Your task to perform on an android device: turn off smart reply in the gmail app Image 0: 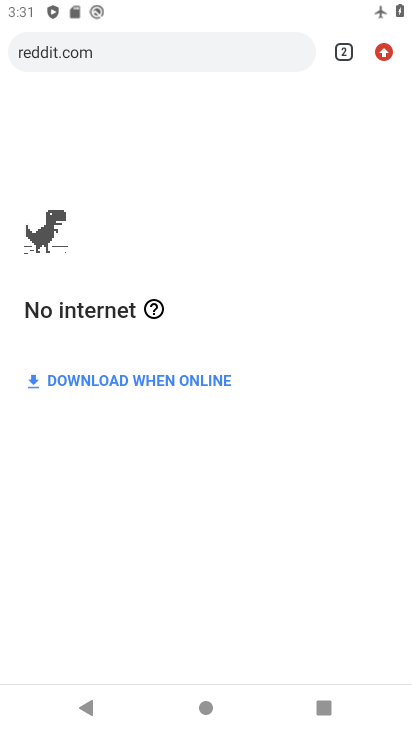
Step 0: press home button
Your task to perform on an android device: turn off smart reply in the gmail app Image 1: 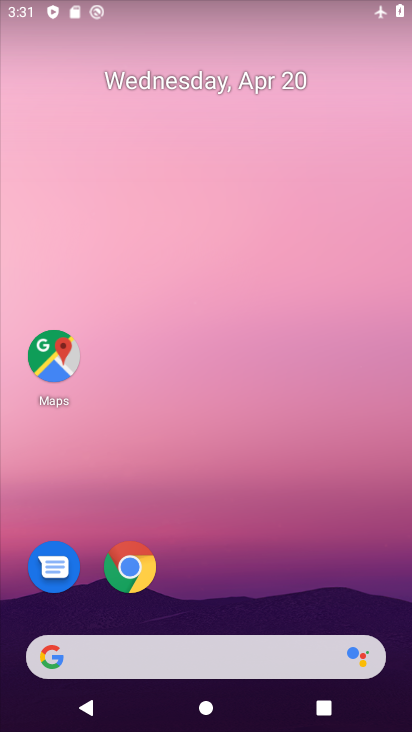
Step 1: drag from (209, 566) to (207, 265)
Your task to perform on an android device: turn off smart reply in the gmail app Image 2: 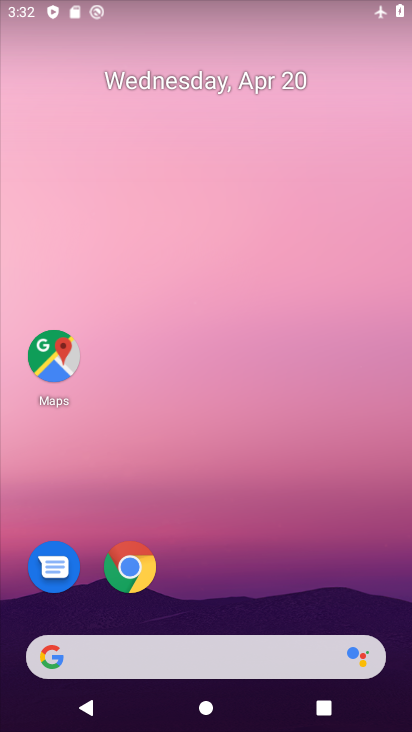
Step 2: drag from (310, 603) to (294, 250)
Your task to perform on an android device: turn off smart reply in the gmail app Image 3: 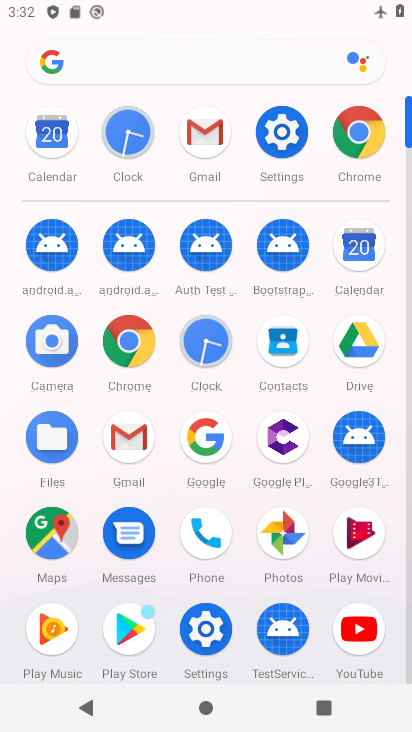
Step 3: click (209, 138)
Your task to perform on an android device: turn off smart reply in the gmail app Image 4: 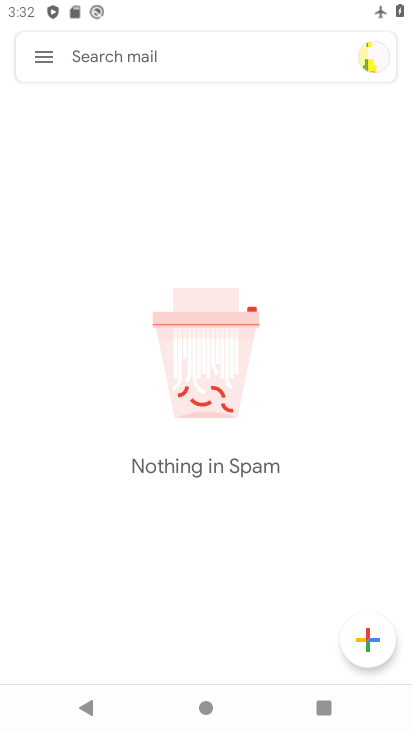
Step 4: click (35, 53)
Your task to perform on an android device: turn off smart reply in the gmail app Image 5: 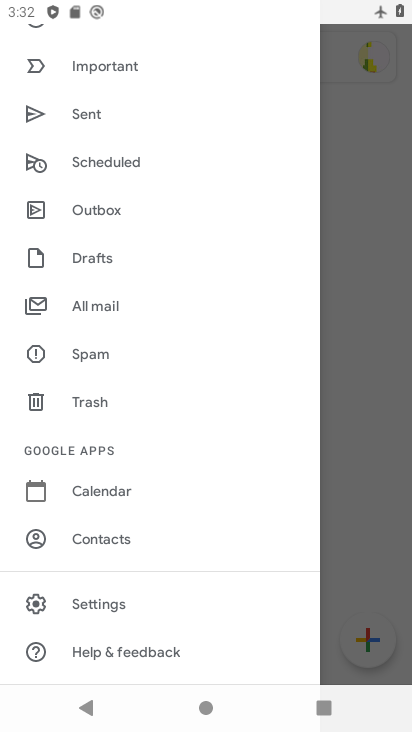
Step 5: click (160, 590)
Your task to perform on an android device: turn off smart reply in the gmail app Image 6: 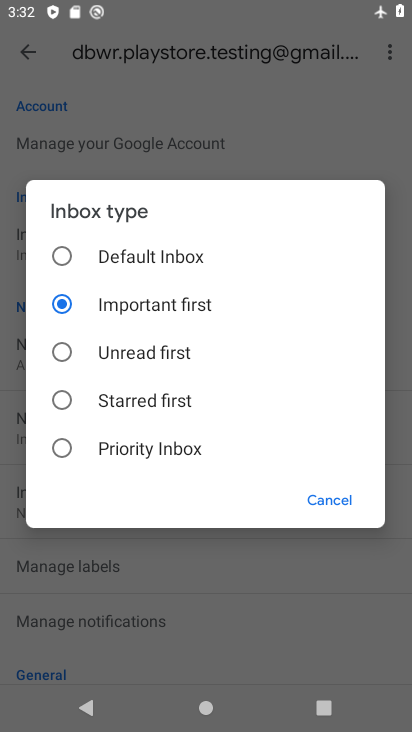
Step 6: click (347, 496)
Your task to perform on an android device: turn off smart reply in the gmail app Image 7: 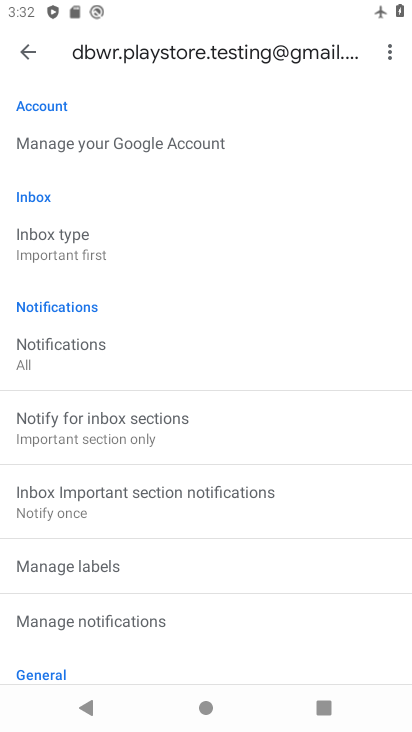
Step 7: drag from (314, 618) to (303, 83)
Your task to perform on an android device: turn off smart reply in the gmail app Image 8: 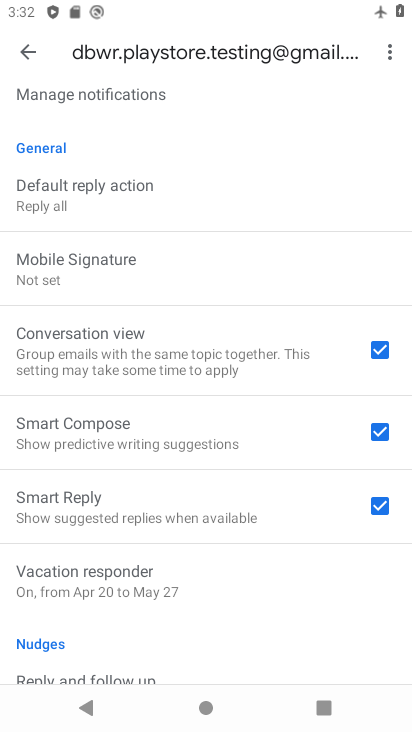
Step 8: click (382, 513)
Your task to perform on an android device: turn off smart reply in the gmail app Image 9: 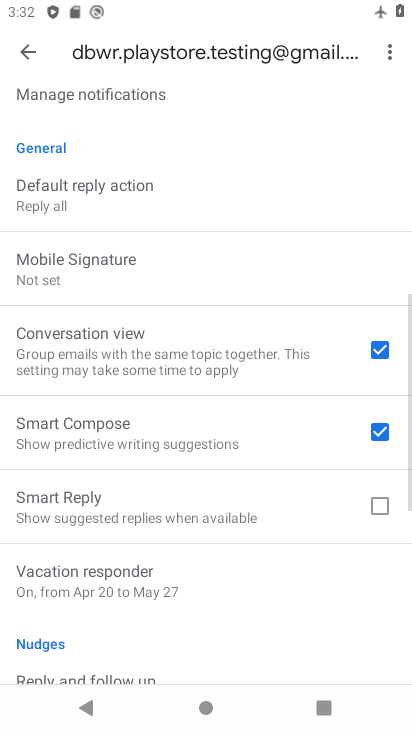
Step 9: task complete